Your task to perform on an android device: Go to Google Image 0: 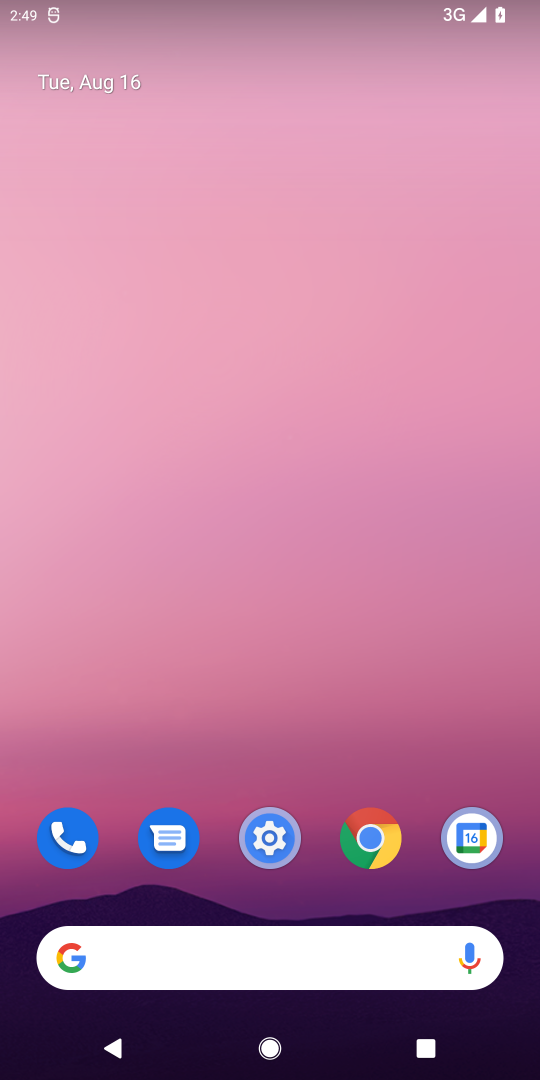
Step 0: press home button
Your task to perform on an android device: Go to Google Image 1: 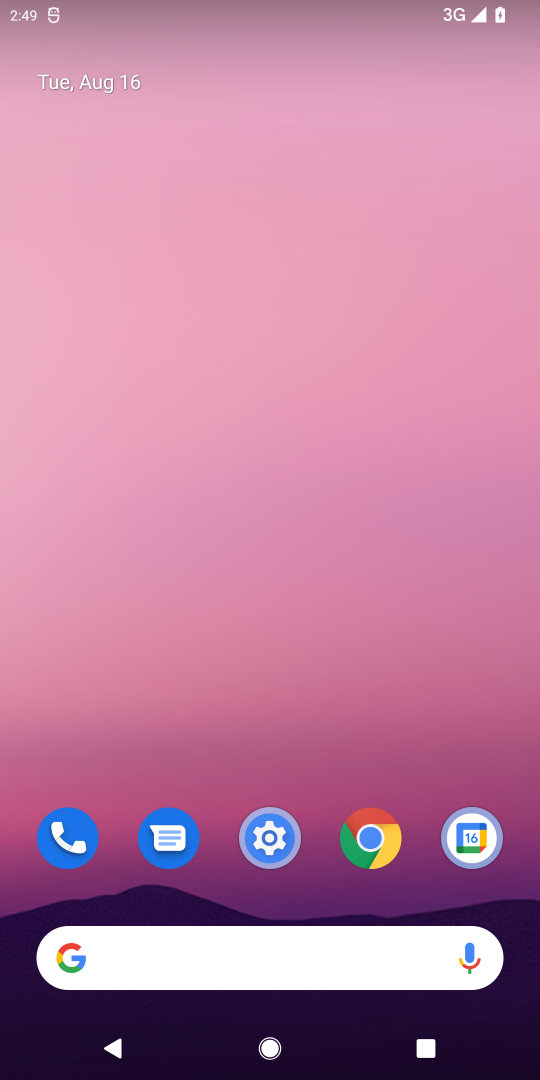
Step 1: drag from (340, 766) to (289, 113)
Your task to perform on an android device: Go to Google Image 2: 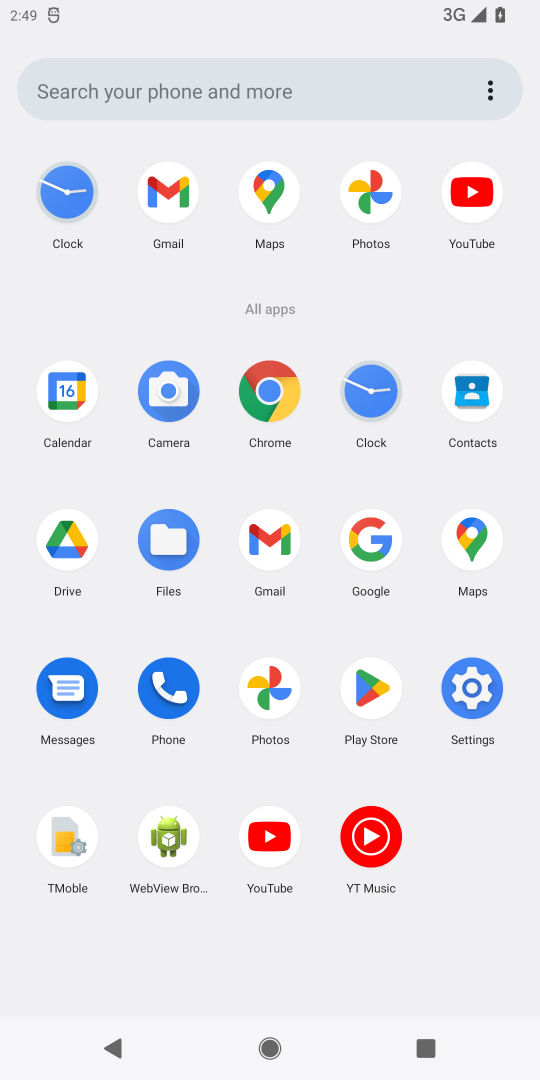
Step 2: click (363, 538)
Your task to perform on an android device: Go to Google Image 3: 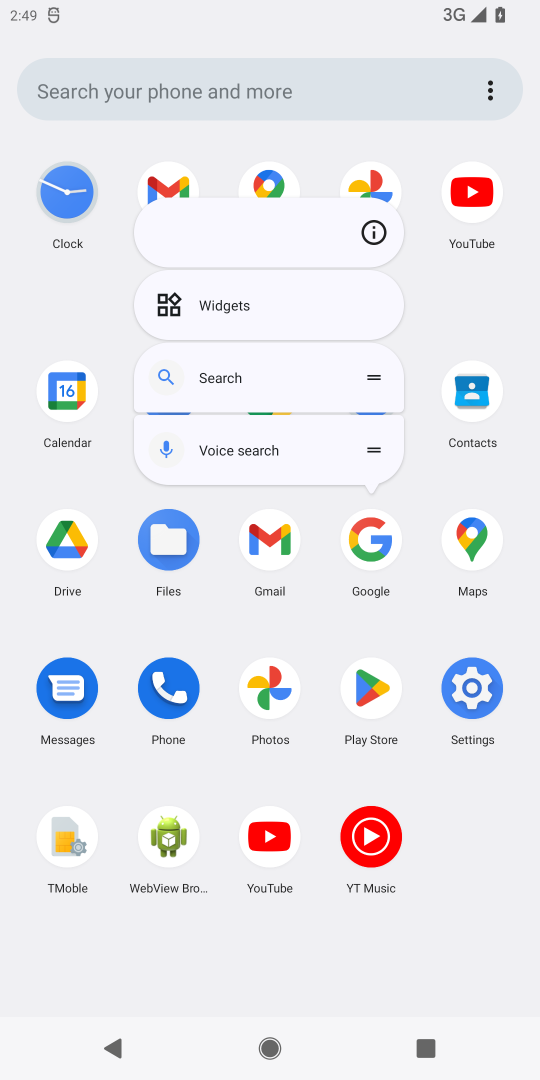
Step 3: click (381, 540)
Your task to perform on an android device: Go to Google Image 4: 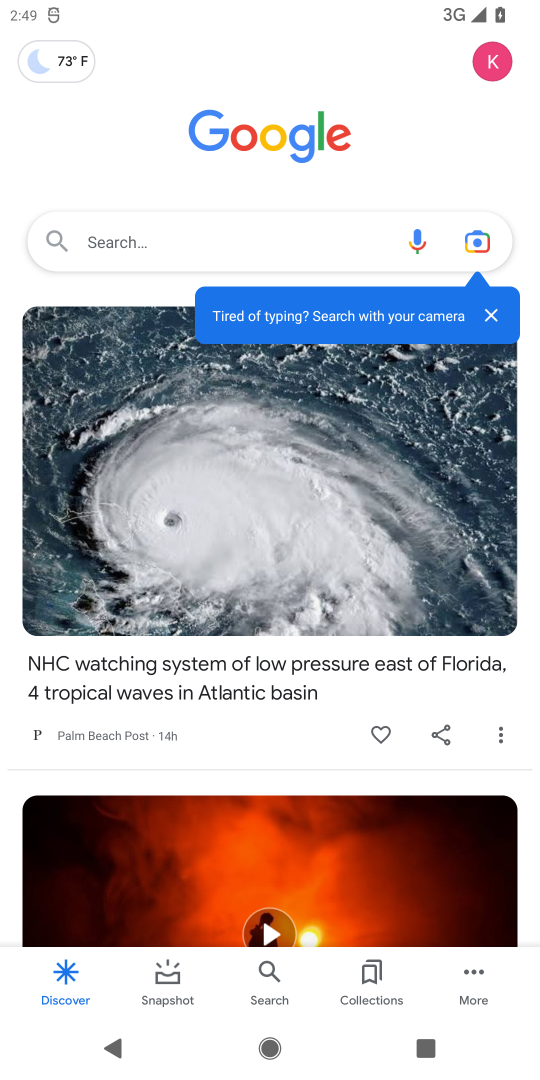
Step 4: task complete